Your task to perform on an android device: Go to Reddit.com Image 0: 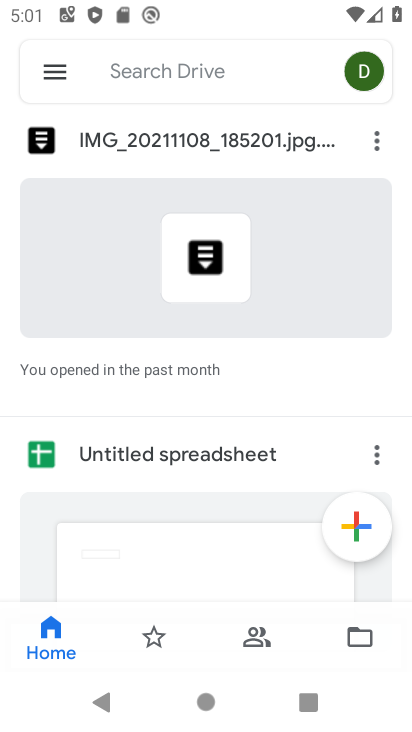
Step 0: press home button
Your task to perform on an android device: Go to Reddit.com Image 1: 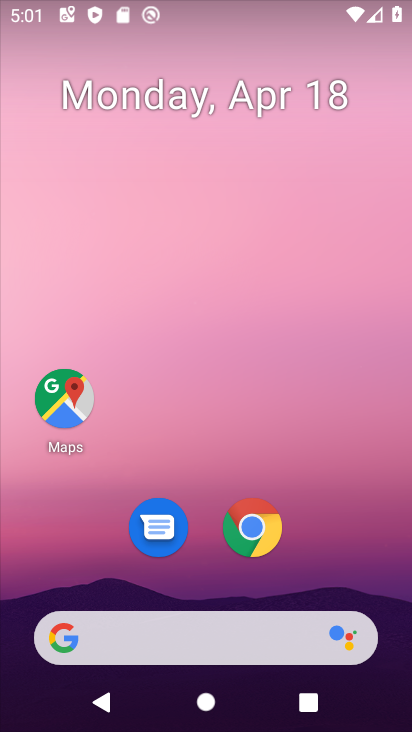
Step 1: click (252, 530)
Your task to perform on an android device: Go to Reddit.com Image 2: 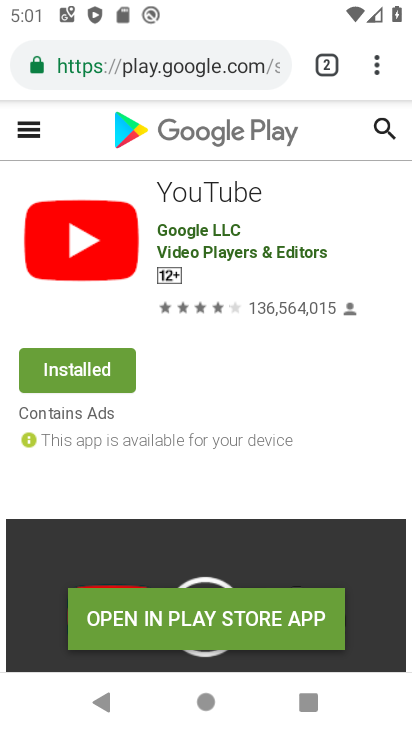
Step 2: click (321, 66)
Your task to perform on an android device: Go to Reddit.com Image 3: 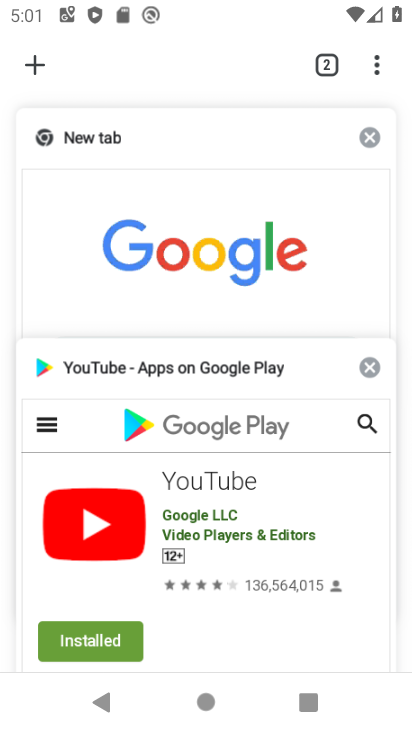
Step 3: click (35, 57)
Your task to perform on an android device: Go to Reddit.com Image 4: 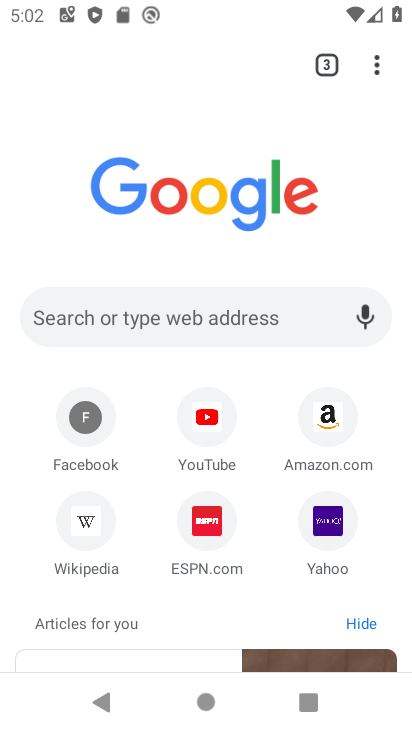
Step 4: click (164, 316)
Your task to perform on an android device: Go to Reddit.com Image 5: 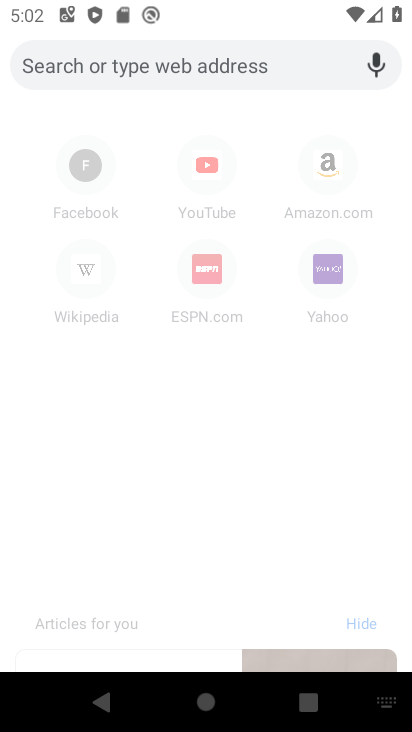
Step 5: type "Reddit.com"
Your task to perform on an android device: Go to Reddit.com Image 6: 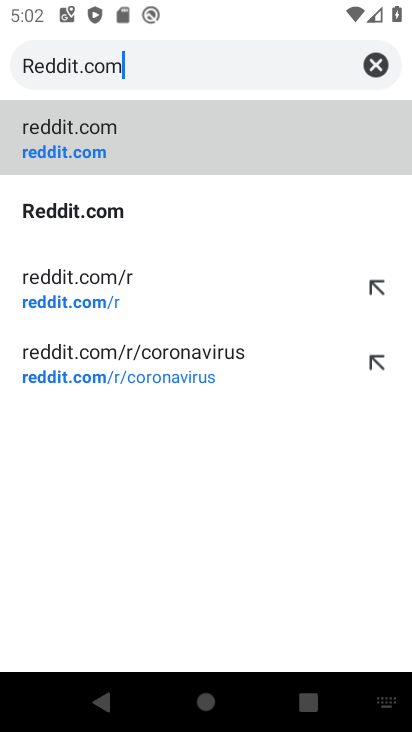
Step 6: click (93, 206)
Your task to perform on an android device: Go to Reddit.com Image 7: 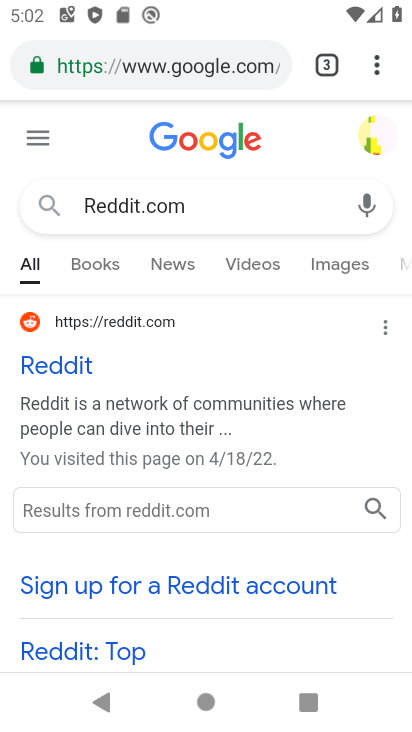
Step 7: click (67, 370)
Your task to perform on an android device: Go to Reddit.com Image 8: 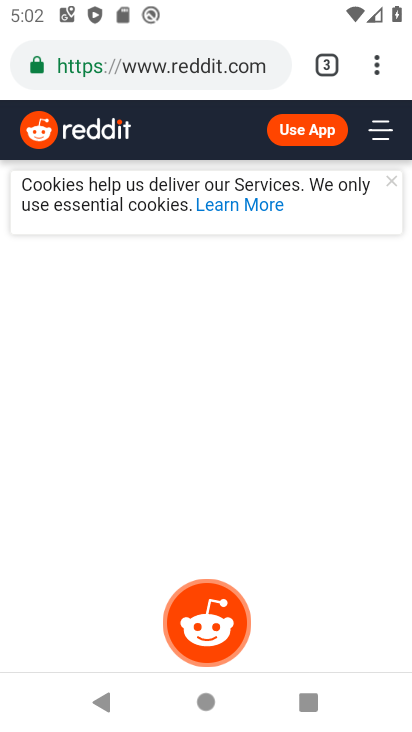
Step 8: task complete